Your task to perform on an android device: add a label to a message in the gmail app Image 0: 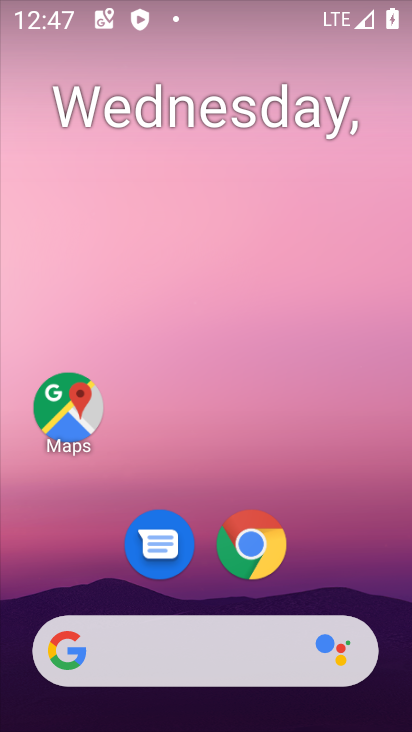
Step 0: drag from (390, 619) to (316, 85)
Your task to perform on an android device: add a label to a message in the gmail app Image 1: 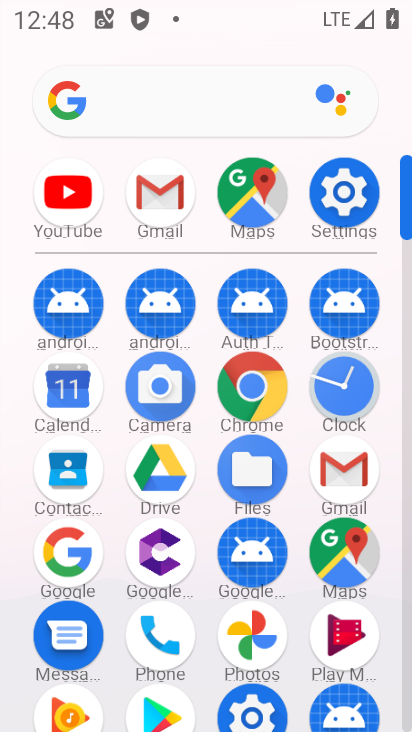
Step 1: click (326, 481)
Your task to perform on an android device: add a label to a message in the gmail app Image 2: 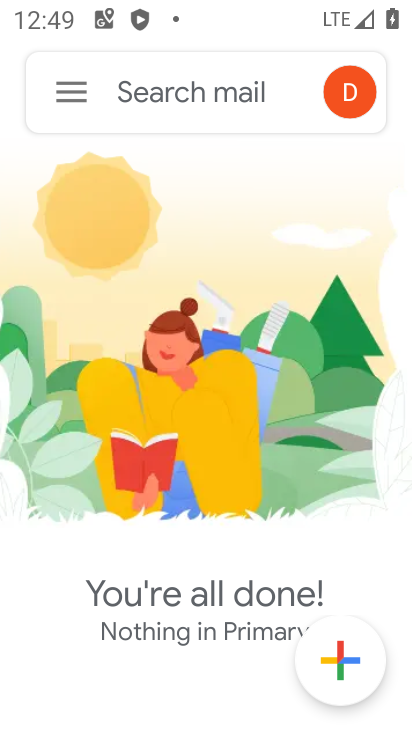
Step 2: task complete